Your task to perform on an android device: What's the news in Indonesia? Image 0: 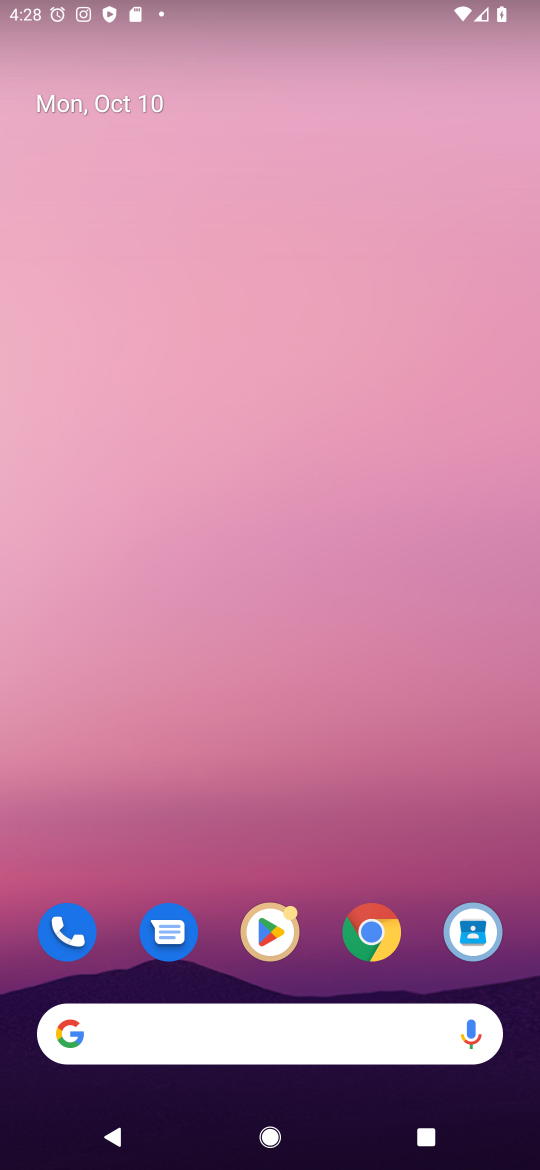
Step 0: press home button
Your task to perform on an android device: What's the news in Indonesia? Image 1: 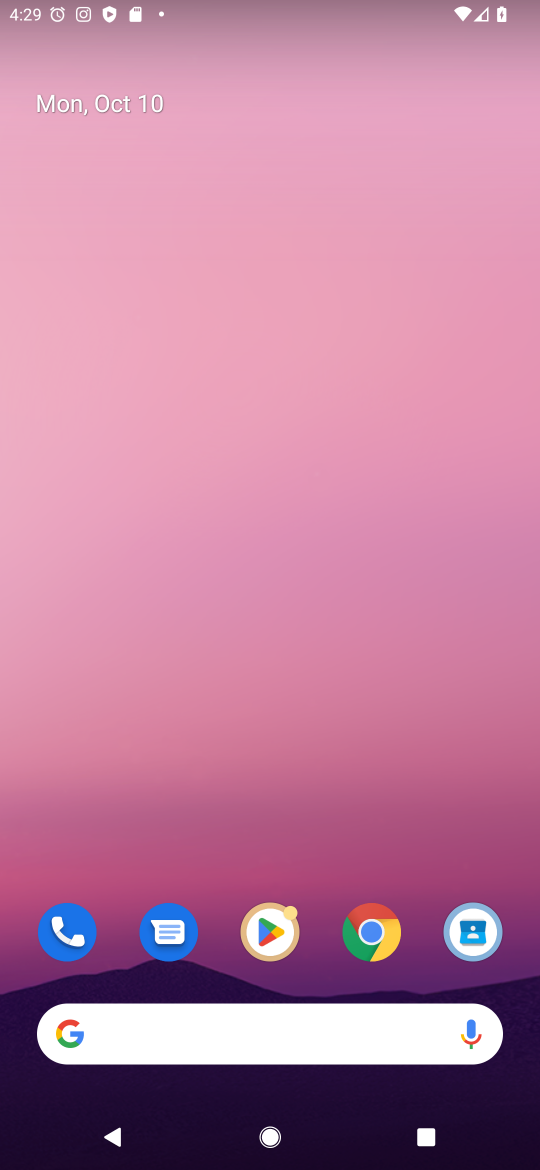
Step 1: click (376, 1036)
Your task to perform on an android device: What's the news in Indonesia? Image 2: 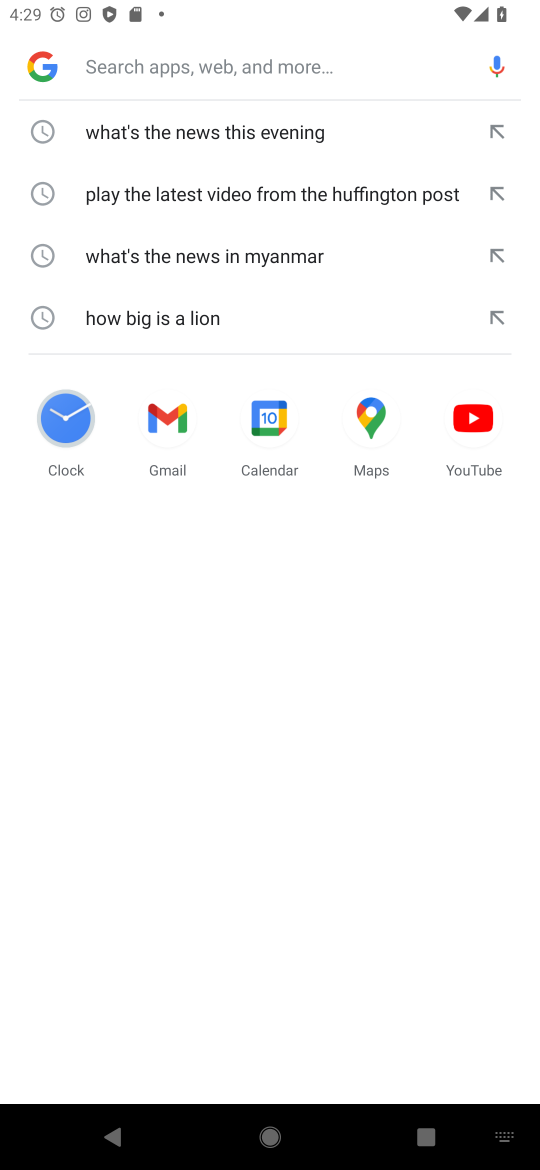
Step 2: press enter
Your task to perform on an android device: What's the news in Indonesia? Image 3: 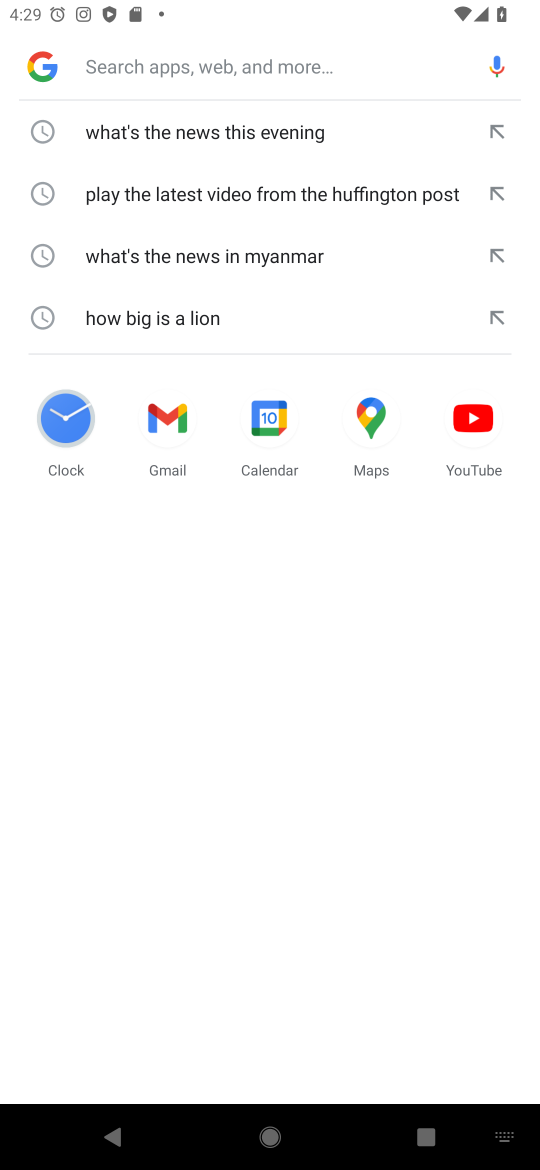
Step 3: type "What's the news in Indonesia"
Your task to perform on an android device: What's the news in Indonesia? Image 4: 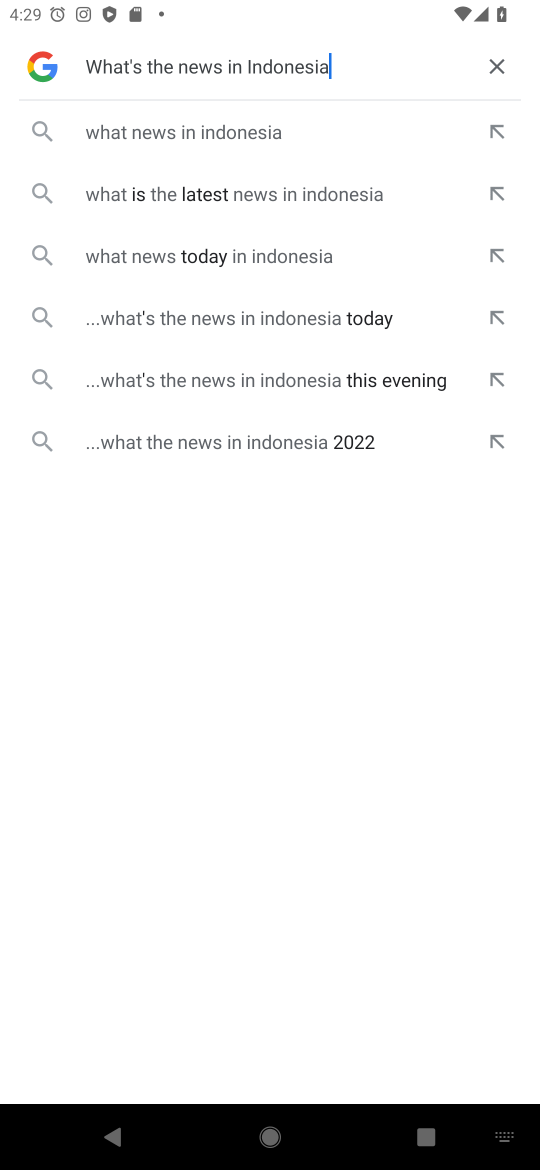
Step 4: press enter
Your task to perform on an android device: What's the news in Indonesia? Image 5: 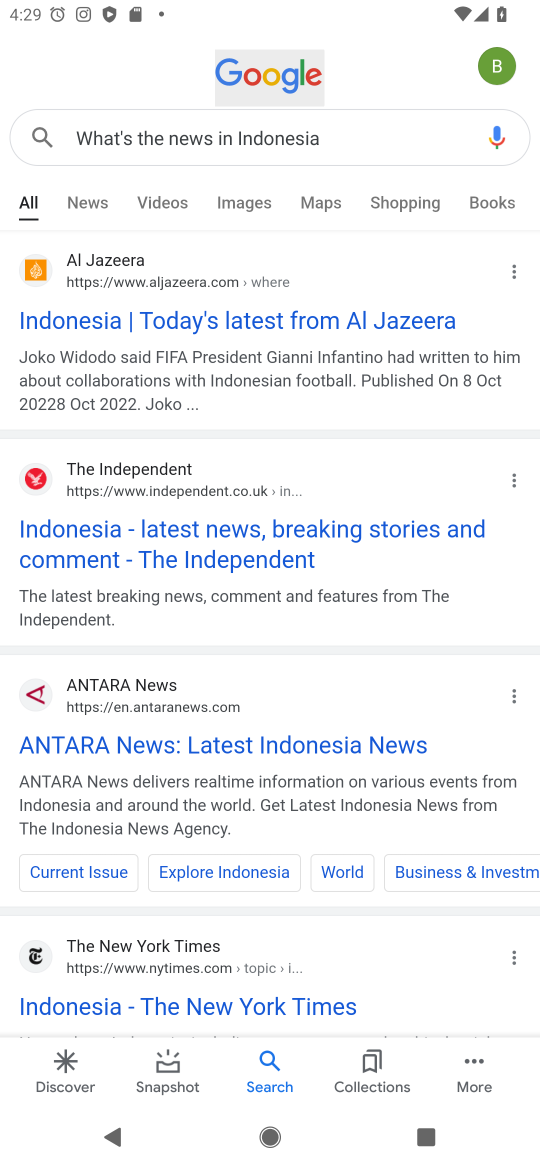
Step 5: click (245, 317)
Your task to perform on an android device: What's the news in Indonesia? Image 6: 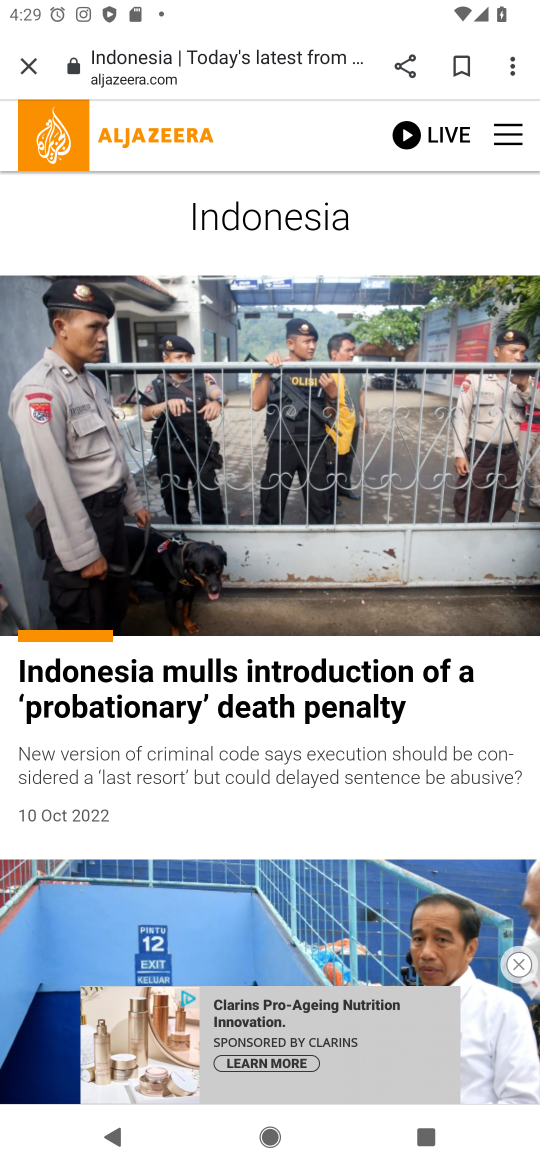
Step 6: drag from (396, 889) to (399, 630)
Your task to perform on an android device: What's the news in Indonesia? Image 7: 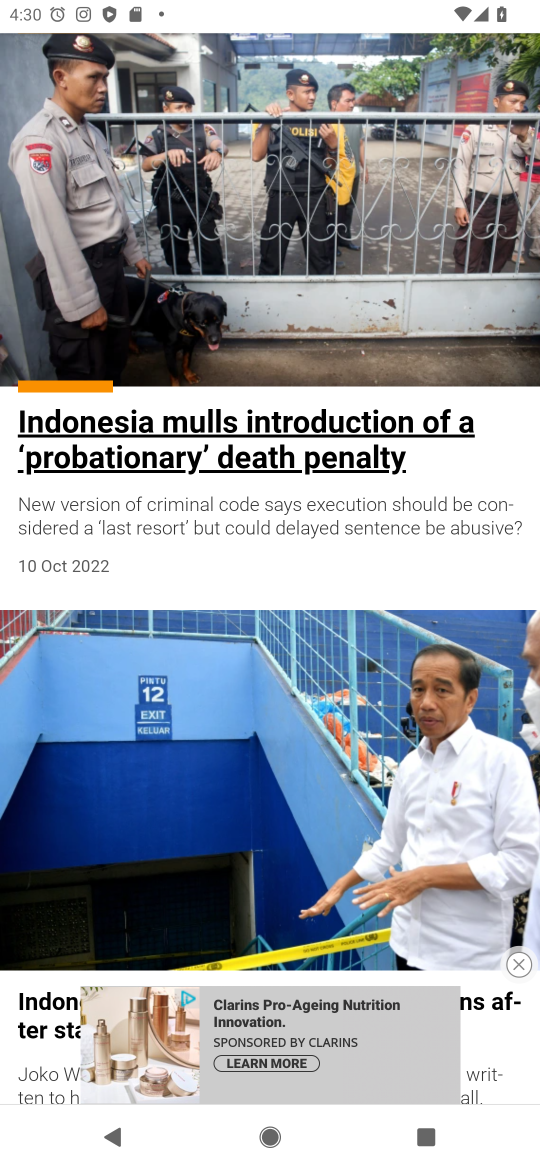
Step 7: drag from (444, 734) to (416, 413)
Your task to perform on an android device: What's the news in Indonesia? Image 8: 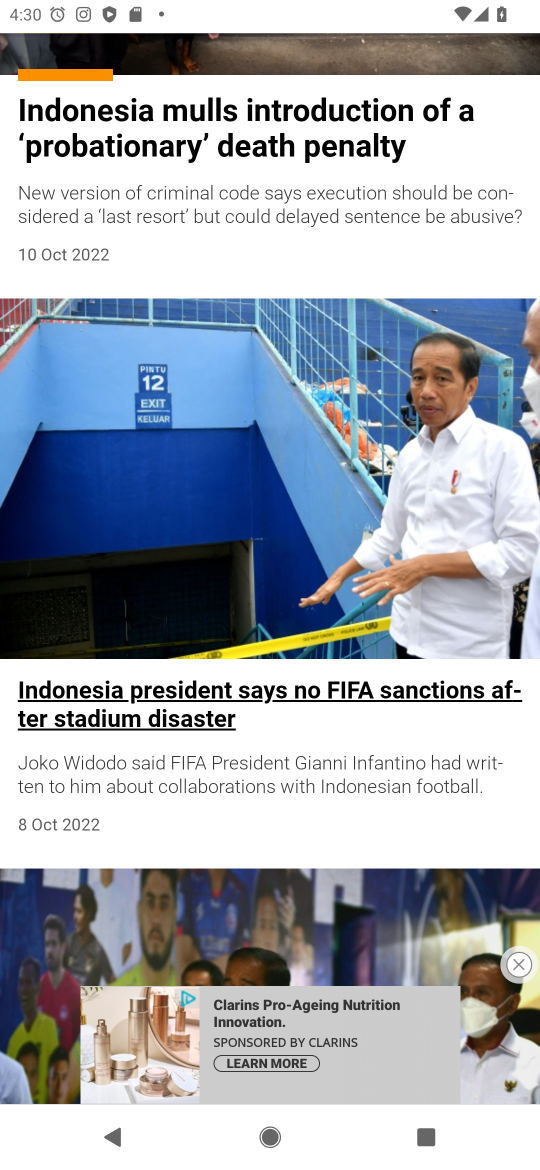
Step 8: click (512, 967)
Your task to perform on an android device: What's the news in Indonesia? Image 9: 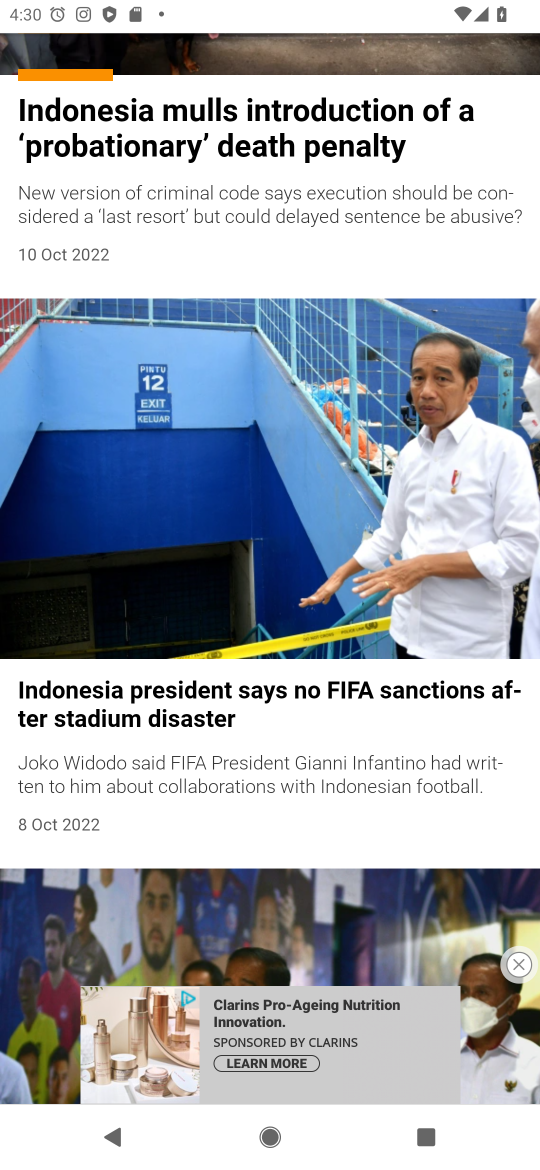
Step 9: drag from (391, 875) to (402, 395)
Your task to perform on an android device: What's the news in Indonesia? Image 10: 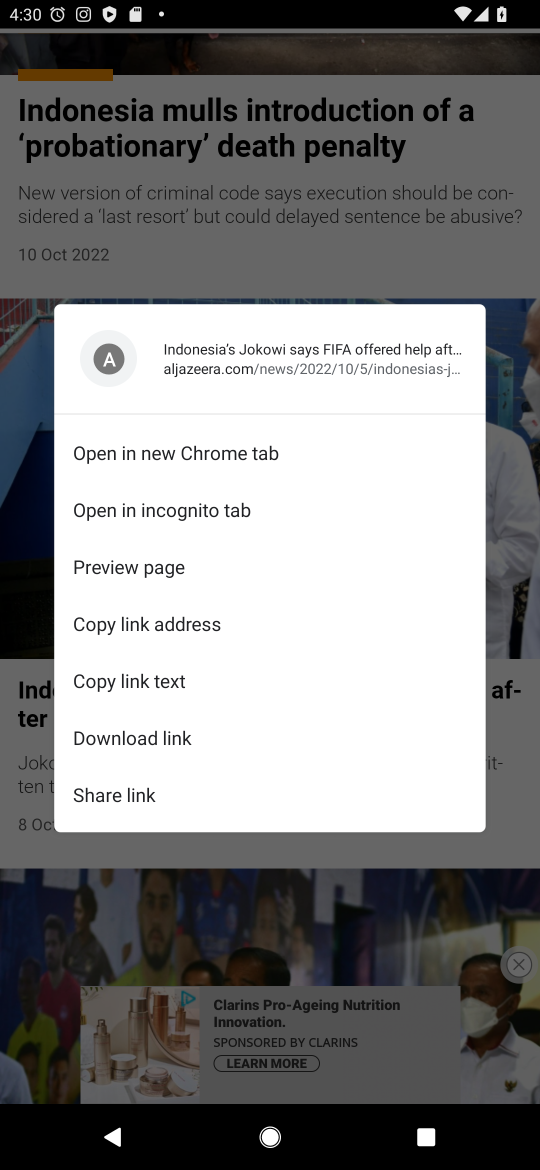
Step 10: click (534, 491)
Your task to perform on an android device: What's the news in Indonesia? Image 11: 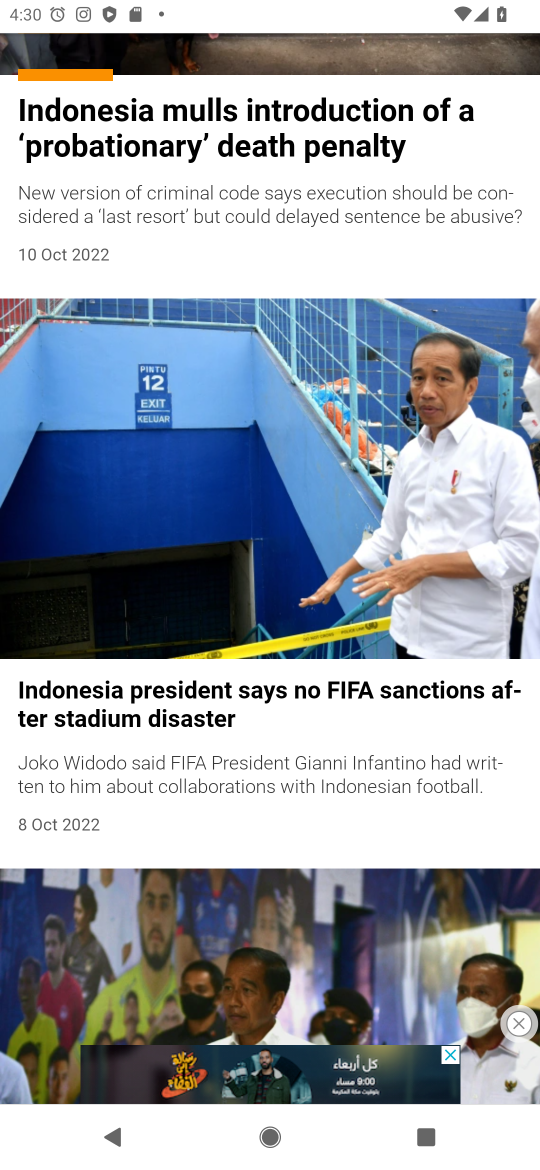
Step 11: task complete